Your task to perform on an android device: turn off wifi Image 0: 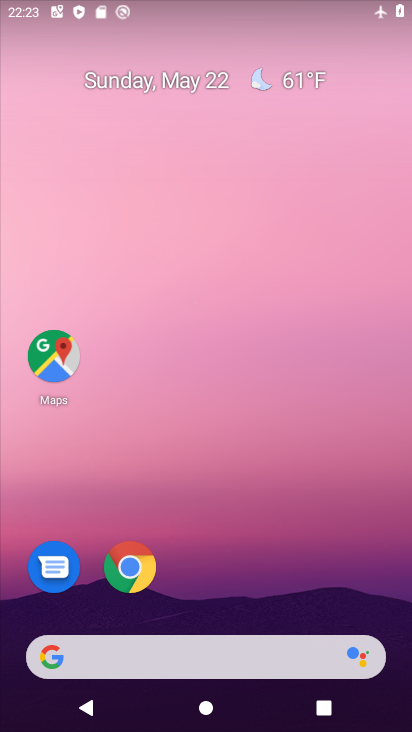
Step 0: drag from (205, 621) to (127, 6)
Your task to perform on an android device: turn off wifi Image 1: 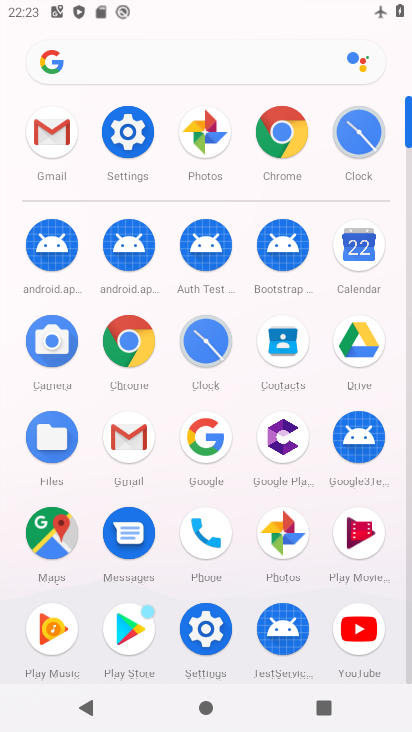
Step 1: click (130, 130)
Your task to perform on an android device: turn off wifi Image 2: 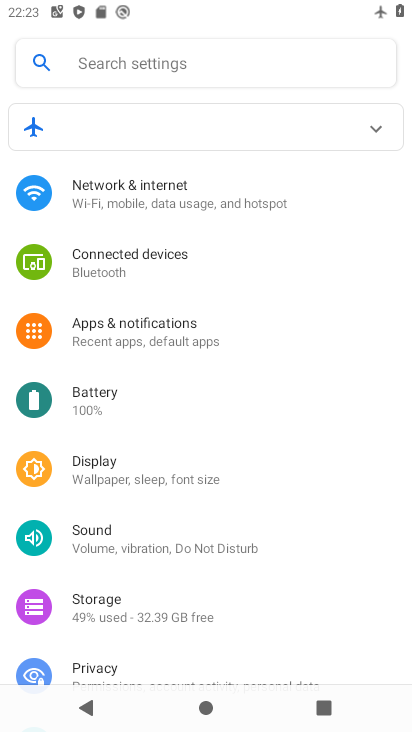
Step 2: click (137, 178)
Your task to perform on an android device: turn off wifi Image 3: 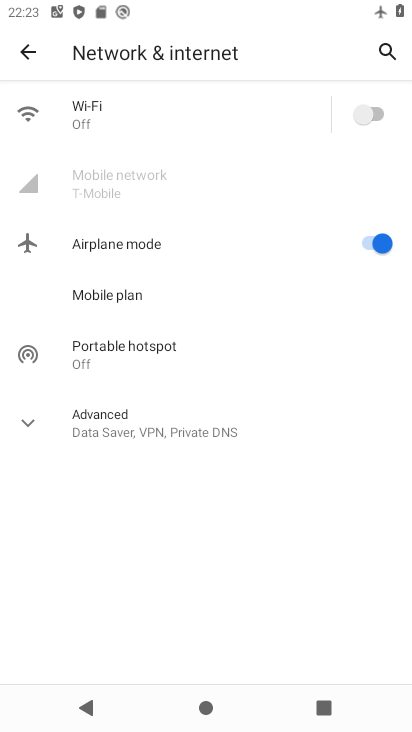
Step 3: task complete